Your task to perform on an android device: Open settings on Google Maps Image 0: 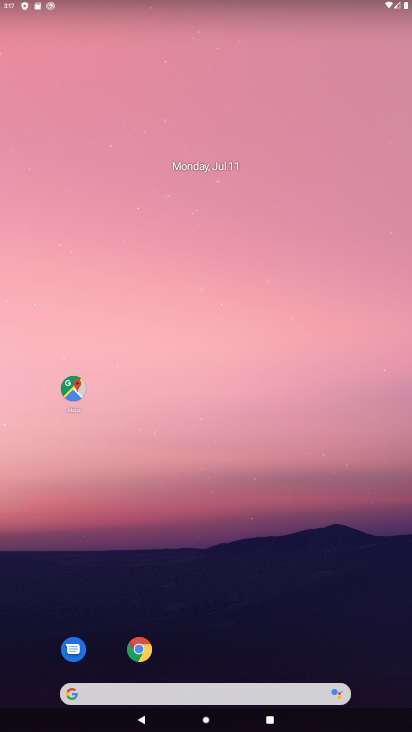
Step 0: drag from (240, 679) to (282, 73)
Your task to perform on an android device: Open settings on Google Maps Image 1: 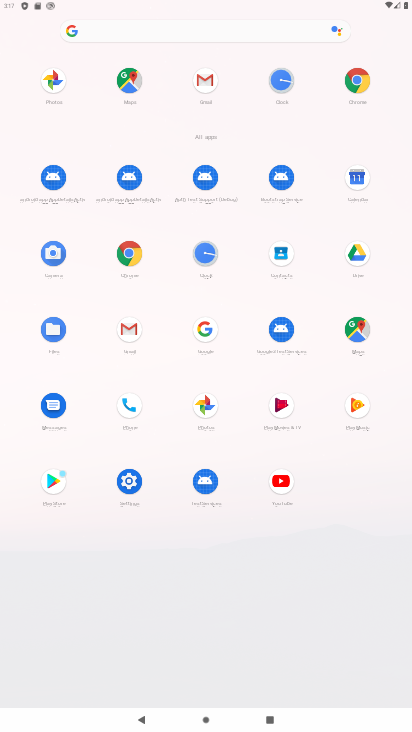
Step 1: click (351, 324)
Your task to perform on an android device: Open settings on Google Maps Image 2: 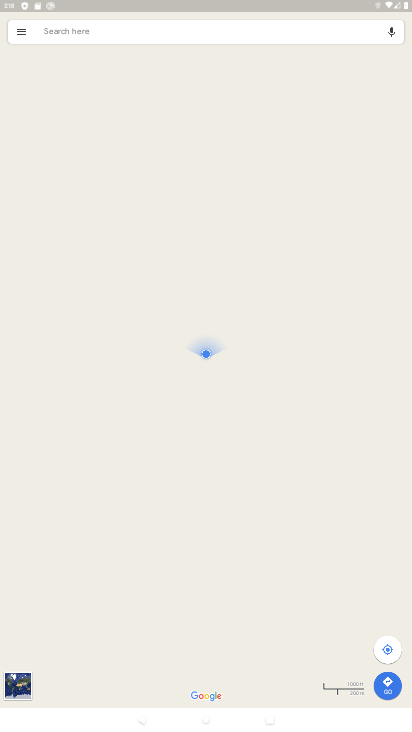
Step 2: click (25, 30)
Your task to perform on an android device: Open settings on Google Maps Image 3: 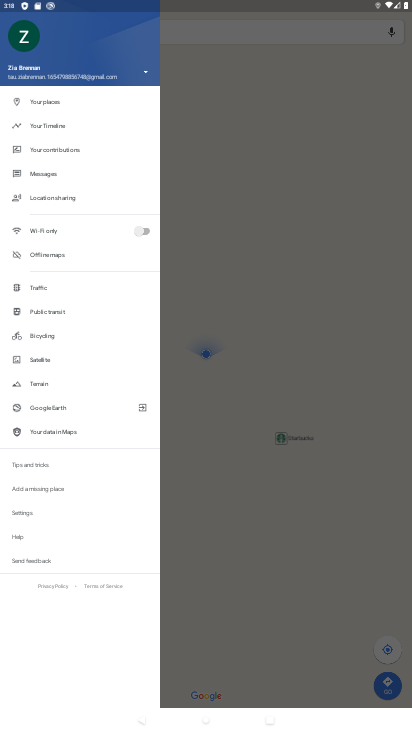
Step 3: click (47, 515)
Your task to perform on an android device: Open settings on Google Maps Image 4: 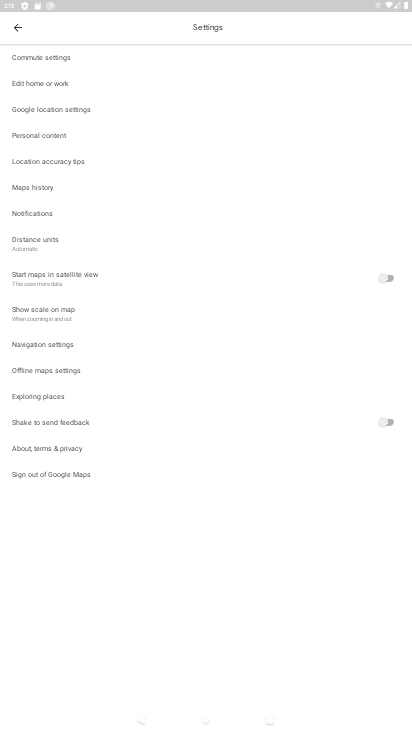
Step 4: task complete